Your task to perform on an android device: change alarm snooze length Image 0: 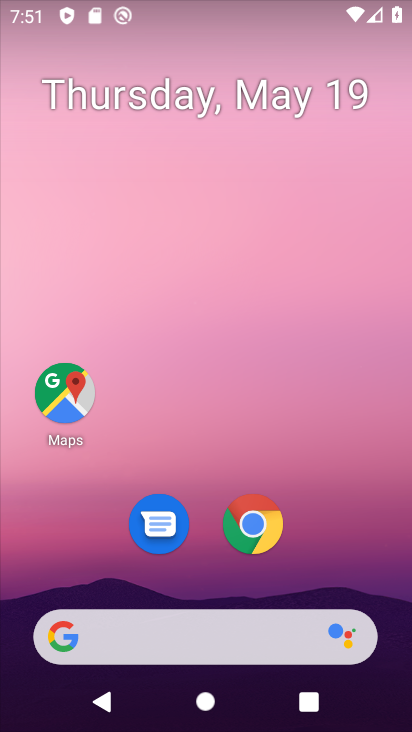
Step 0: drag from (294, 429) to (251, 23)
Your task to perform on an android device: change alarm snooze length Image 1: 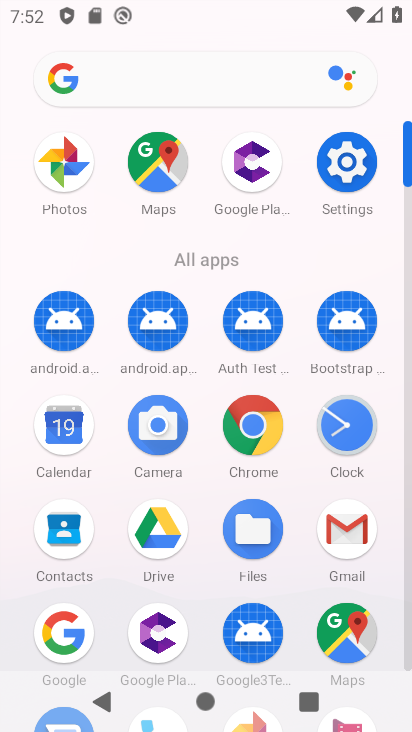
Step 1: click (347, 420)
Your task to perform on an android device: change alarm snooze length Image 2: 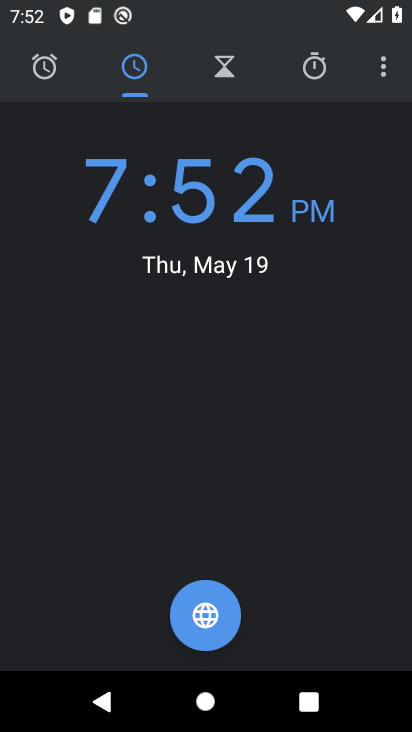
Step 2: click (381, 74)
Your task to perform on an android device: change alarm snooze length Image 3: 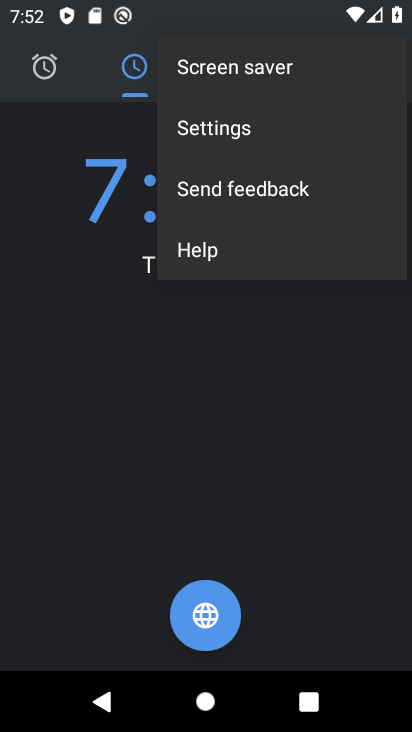
Step 3: click (325, 120)
Your task to perform on an android device: change alarm snooze length Image 4: 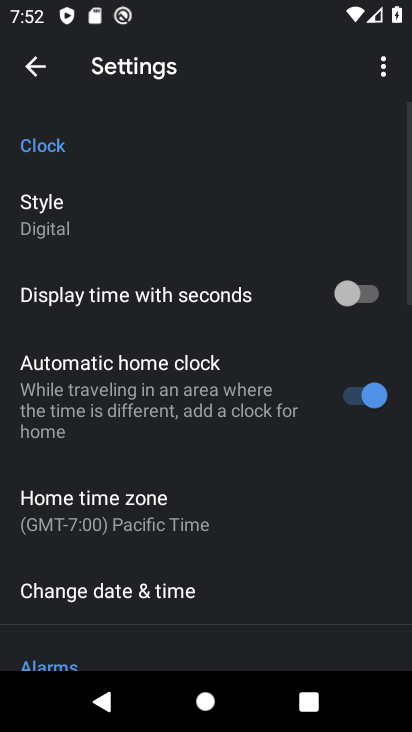
Step 4: drag from (256, 491) to (272, 109)
Your task to perform on an android device: change alarm snooze length Image 5: 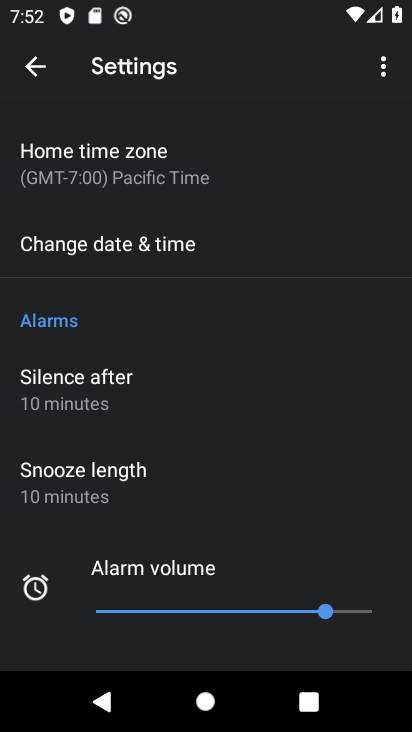
Step 5: click (143, 475)
Your task to perform on an android device: change alarm snooze length Image 6: 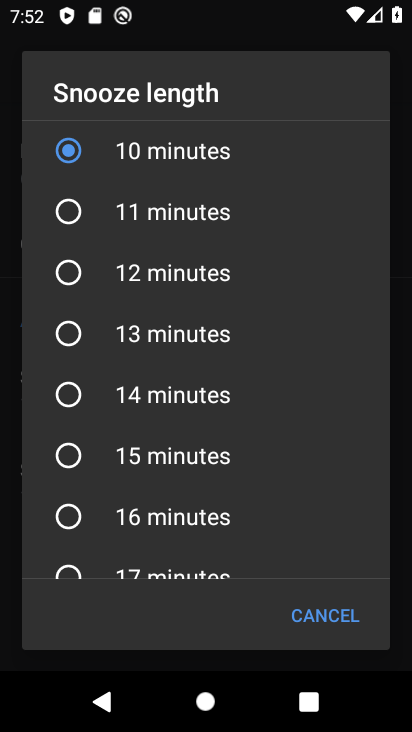
Step 6: click (161, 272)
Your task to perform on an android device: change alarm snooze length Image 7: 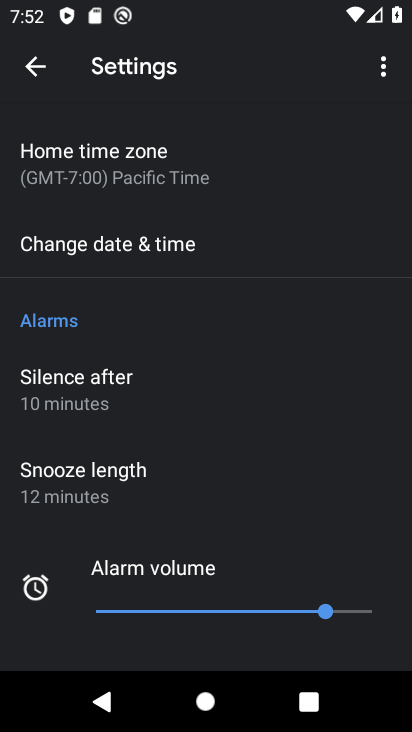
Step 7: task complete